Your task to perform on an android device: Search for the best selling video games at Target Image 0: 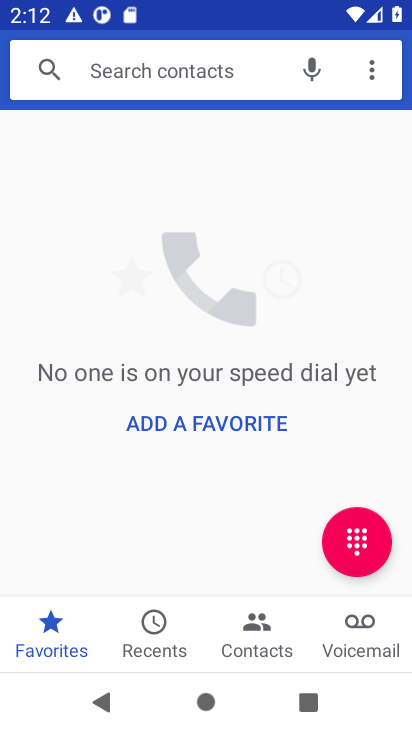
Step 0: press home button
Your task to perform on an android device: Search for the best selling video games at Target Image 1: 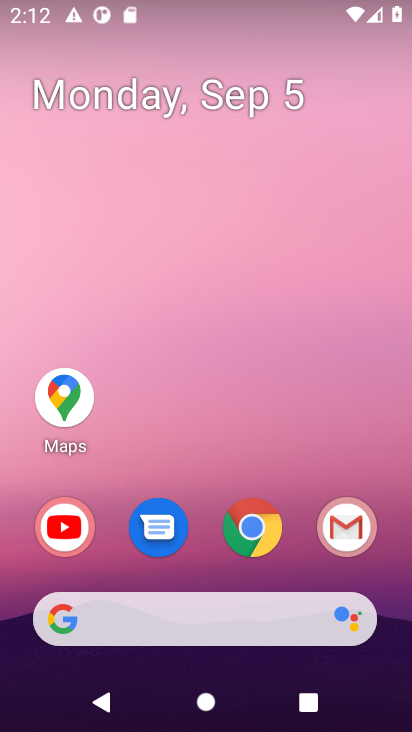
Step 1: click (252, 521)
Your task to perform on an android device: Search for the best selling video games at Target Image 2: 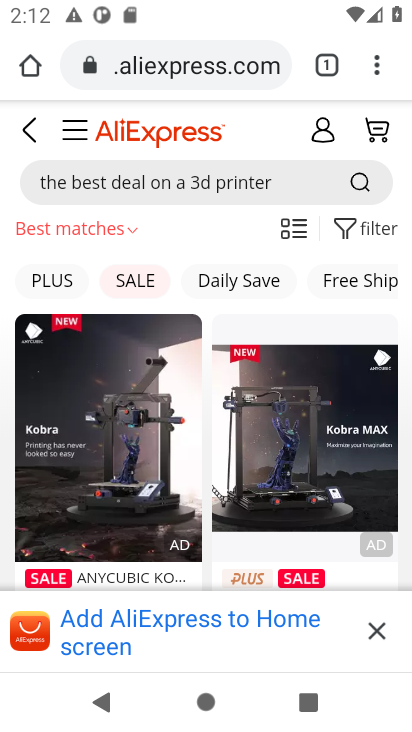
Step 2: click (191, 71)
Your task to perform on an android device: Search for the best selling video games at Target Image 3: 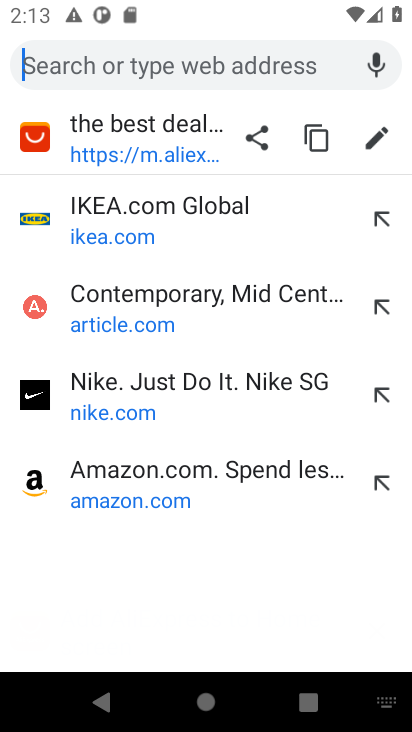
Step 3: type "target"
Your task to perform on an android device: Search for the best selling video games at Target Image 4: 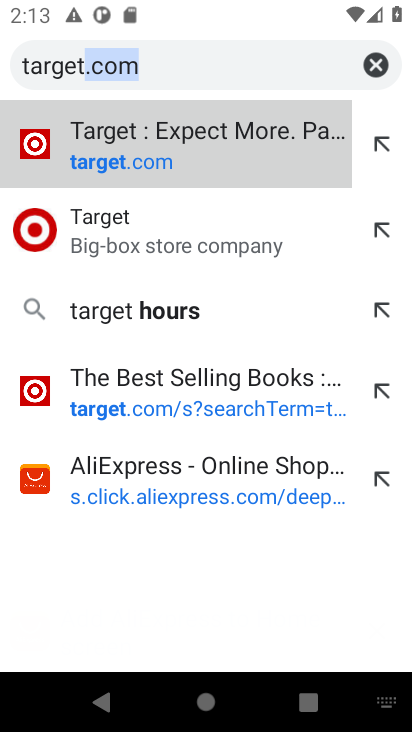
Step 4: click (290, 148)
Your task to perform on an android device: Search for the best selling video games at Target Image 5: 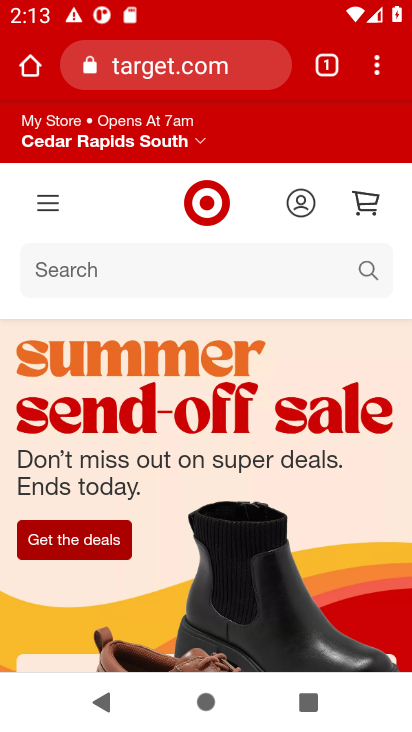
Step 5: click (241, 268)
Your task to perform on an android device: Search for the best selling video games at Target Image 6: 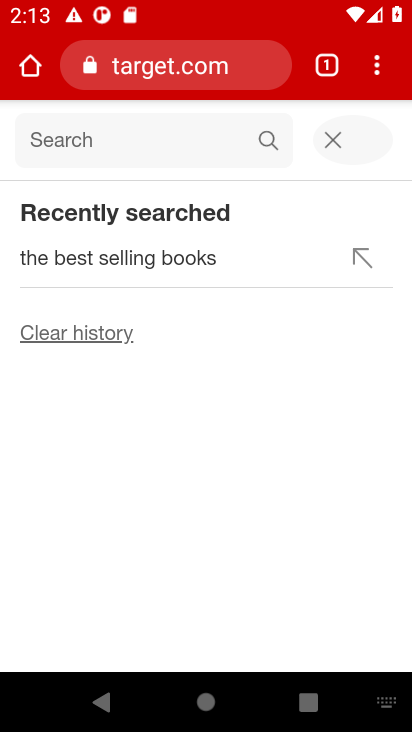
Step 6: type "best selling video games"
Your task to perform on an android device: Search for the best selling video games at Target Image 7: 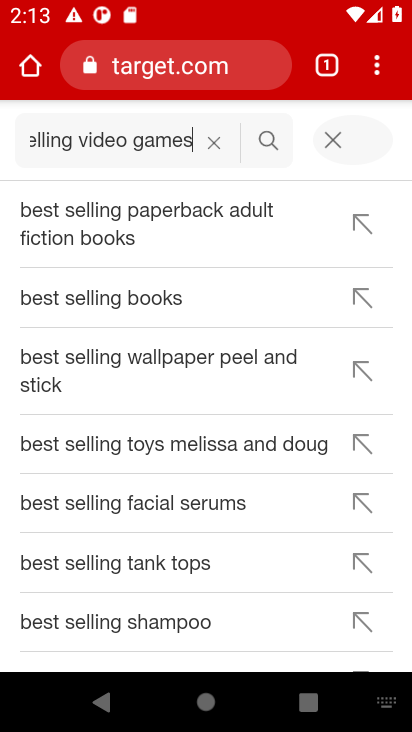
Step 7: click (276, 140)
Your task to perform on an android device: Search for the best selling video games at Target Image 8: 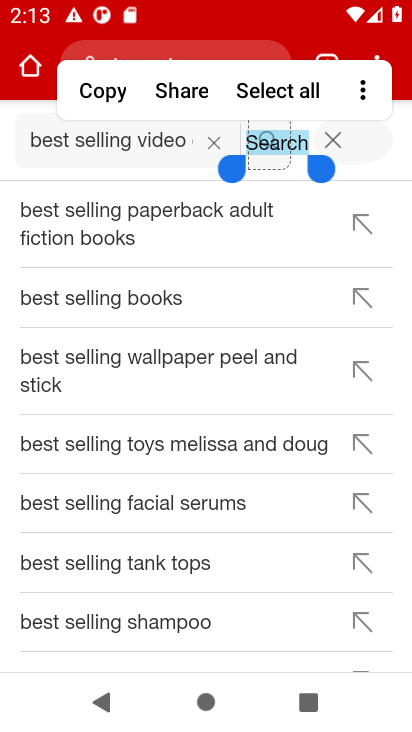
Step 8: click (276, 140)
Your task to perform on an android device: Search for the best selling video games at Target Image 9: 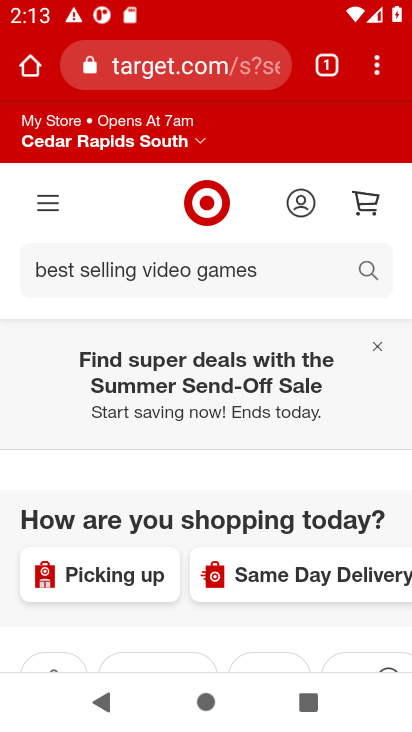
Step 9: task complete